Your task to perform on an android device: change notification settings in the gmail app Image 0: 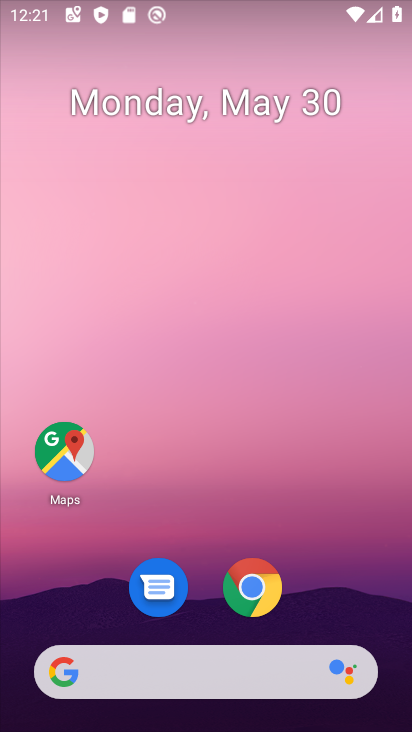
Step 0: drag from (117, 727) to (206, 1)
Your task to perform on an android device: change notification settings in the gmail app Image 1: 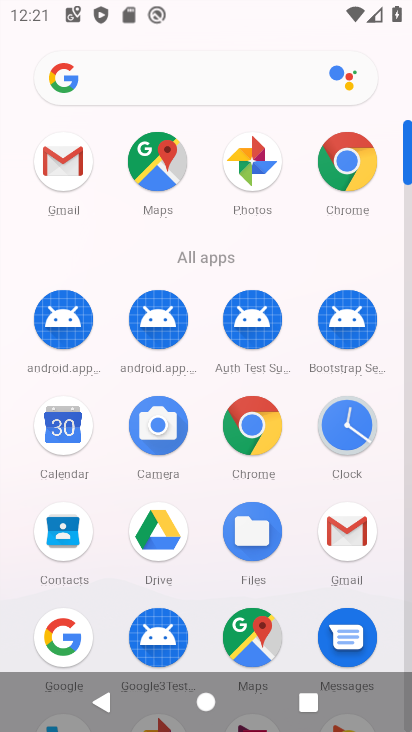
Step 1: click (344, 546)
Your task to perform on an android device: change notification settings in the gmail app Image 2: 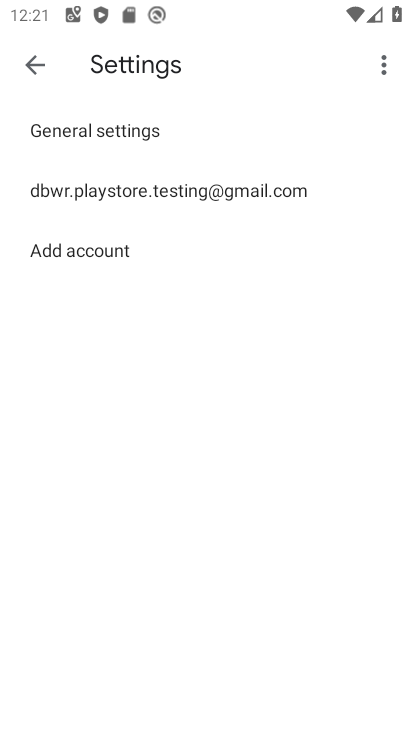
Step 2: click (219, 187)
Your task to perform on an android device: change notification settings in the gmail app Image 3: 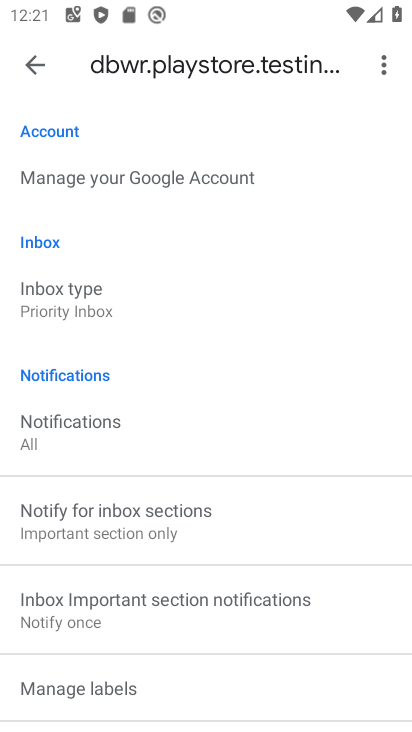
Step 3: click (89, 447)
Your task to perform on an android device: change notification settings in the gmail app Image 4: 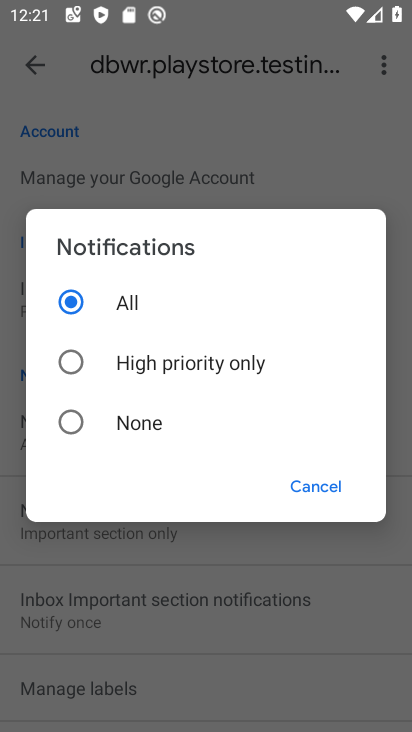
Step 4: click (92, 433)
Your task to perform on an android device: change notification settings in the gmail app Image 5: 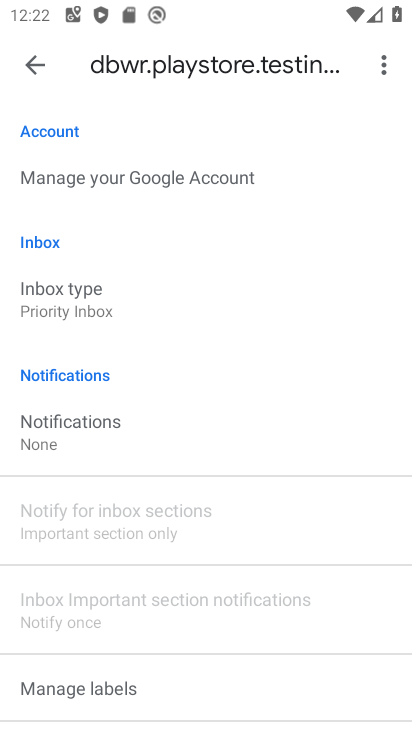
Step 5: task complete